Your task to perform on an android device: Open sound settings Image 0: 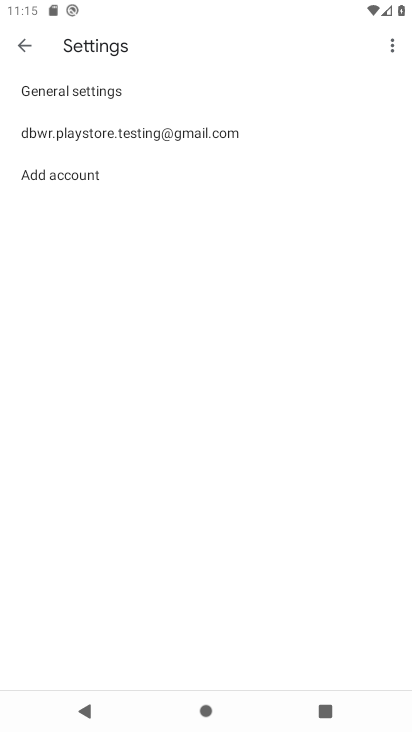
Step 0: press home button
Your task to perform on an android device: Open sound settings Image 1: 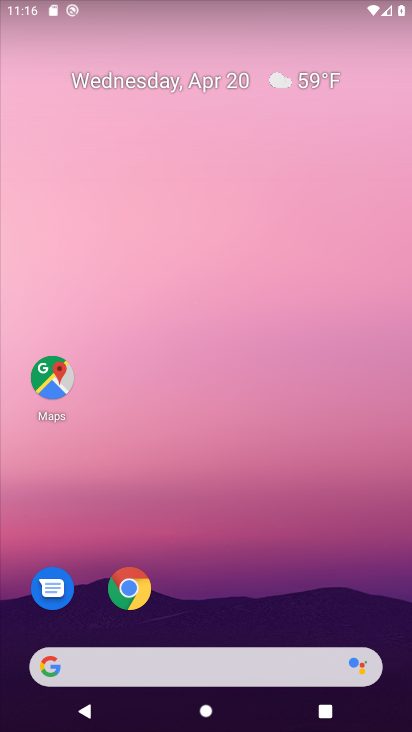
Step 1: drag from (229, 567) to (170, 36)
Your task to perform on an android device: Open sound settings Image 2: 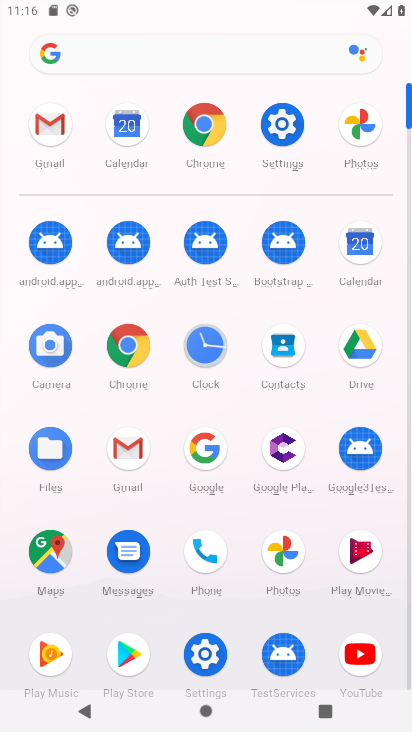
Step 2: click (276, 131)
Your task to perform on an android device: Open sound settings Image 3: 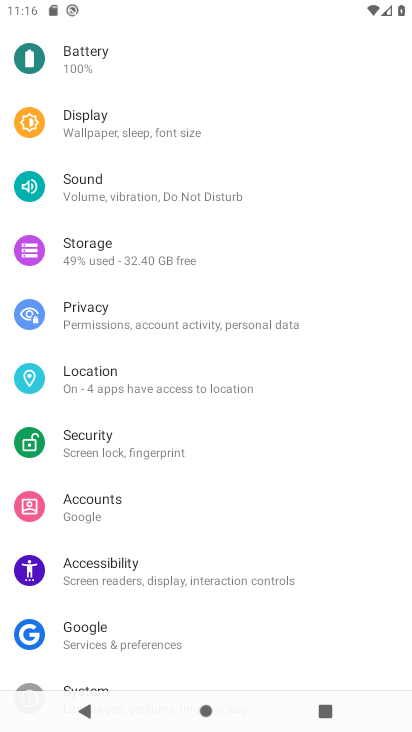
Step 3: click (72, 180)
Your task to perform on an android device: Open sound settings Image 4: 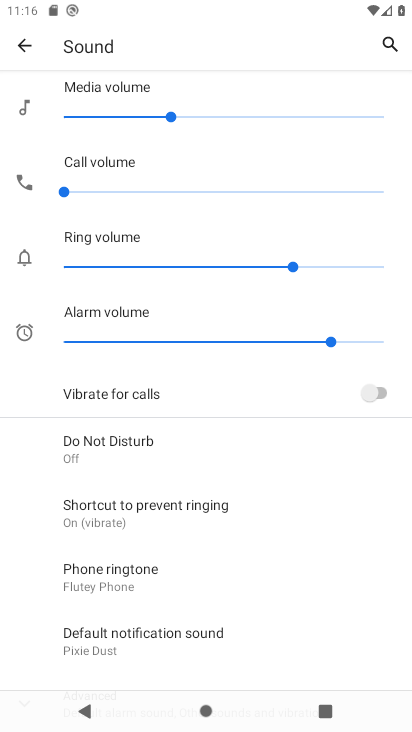
Step 4: task complete